Your task to perform on an android device: Open sound settings Image 0: 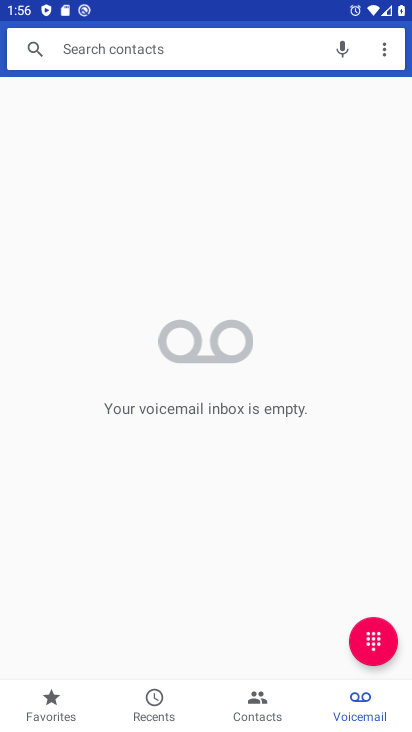
Step 0: drag from (194, 606) to (154, 352)
Your task to perform on an android device: Open sound settings Image 1: 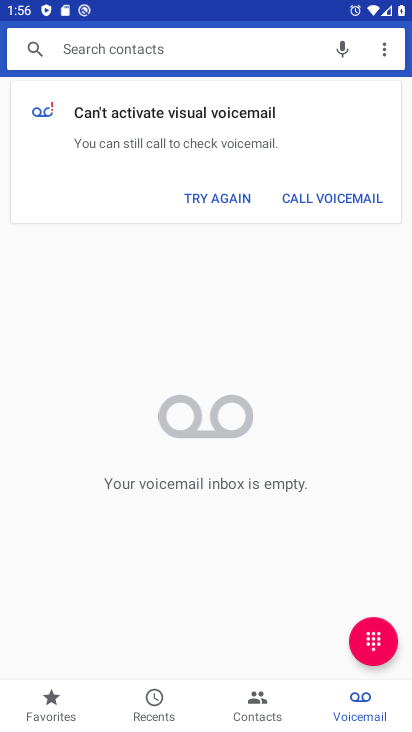
Step 1: press home button
Your task to perform on an android device: Open sound settings Image 2: 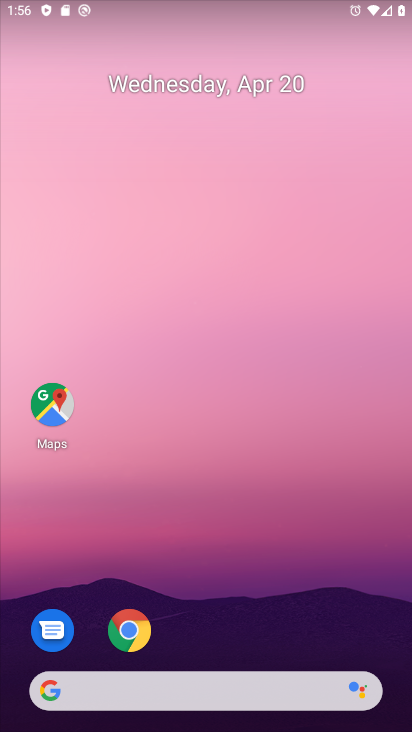
Step 2: drag from (191, 583) to (62, 94)
Your task to perform on an android device: Open sound settings Image 3: 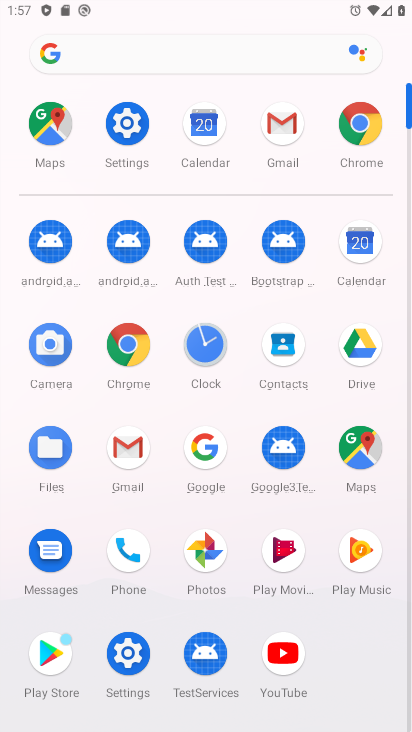
Step 3: click (130, 649)
Your task to perform on an android device: Open sound settings Image 4: 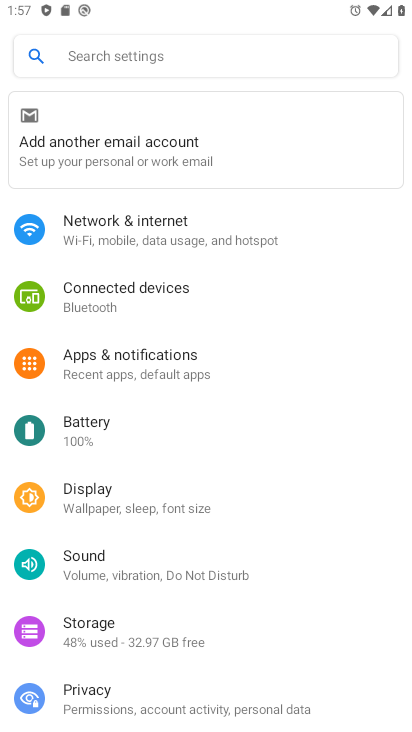
Step 4: click (96, 566)
Your task to perform on an android device: Open sound settings Image 5: 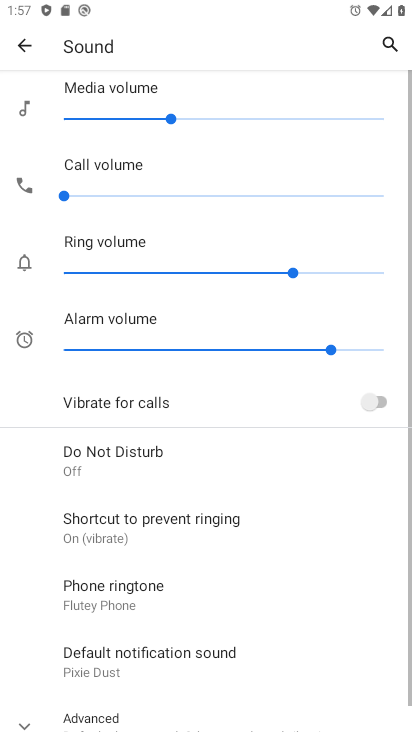
Step 5: drag from (103, 634) to (66, 192)
Your task to perform on an android device: Open sound settings Image 6: 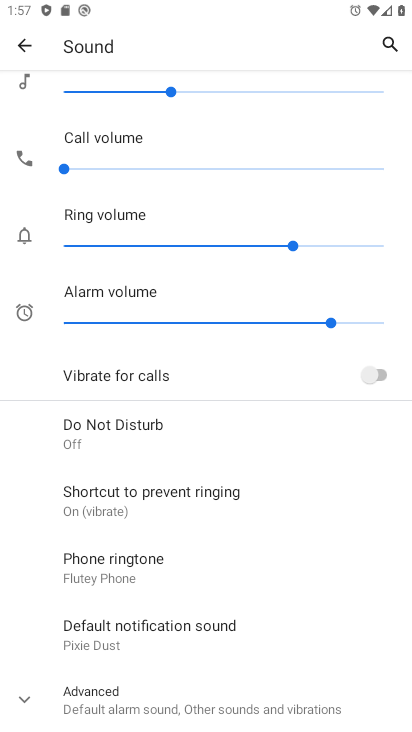
Step 6: click (98, 700)
Your task to perform on an android device: Open sound settings Image 7: 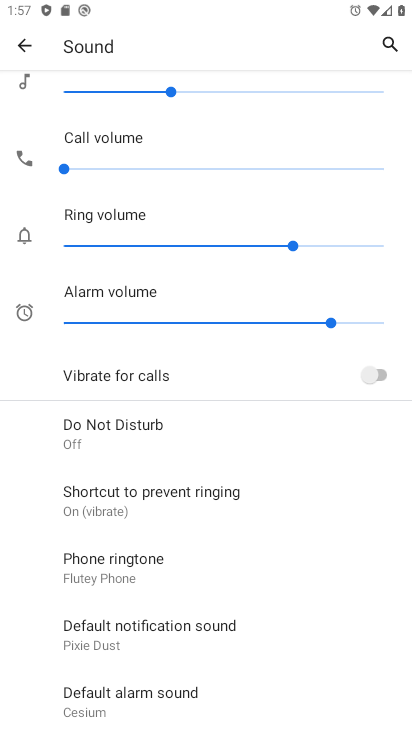
Step 7: task complete